Your task to perform on an android device: open chrome and create a bookmark for the current page Image 0: 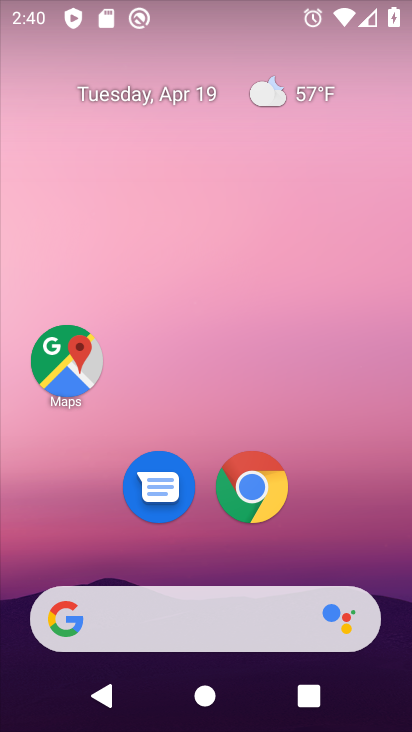
Step 0: click (336, 189)
Your task to perform on an android device: open chrome and create a bookmark for the current page Image 1: 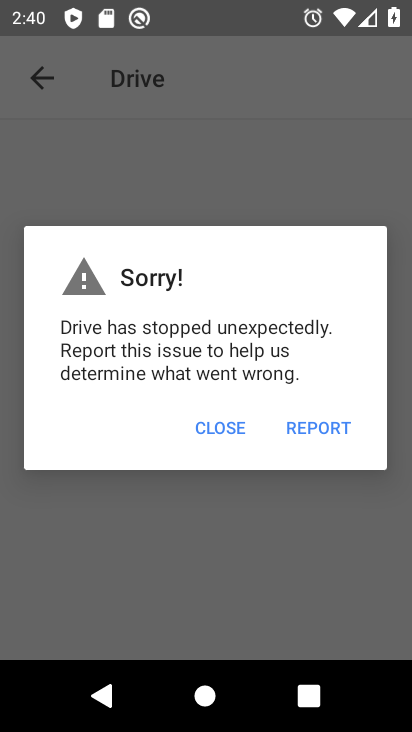
Step 1: drag from (359, 388) to (359, 192)
Your task to perform on an android device: open chrome and create a bookmark for the current page Image 2: 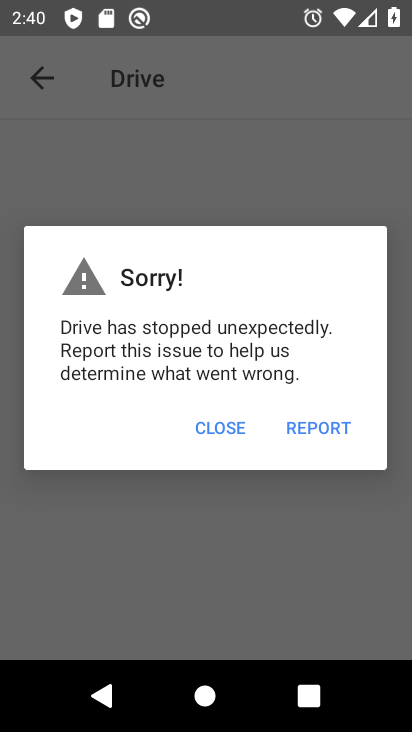
Step 2: press home button
Your task to perform on an android device: open chrome and create a bookmark for the current page Image 3: 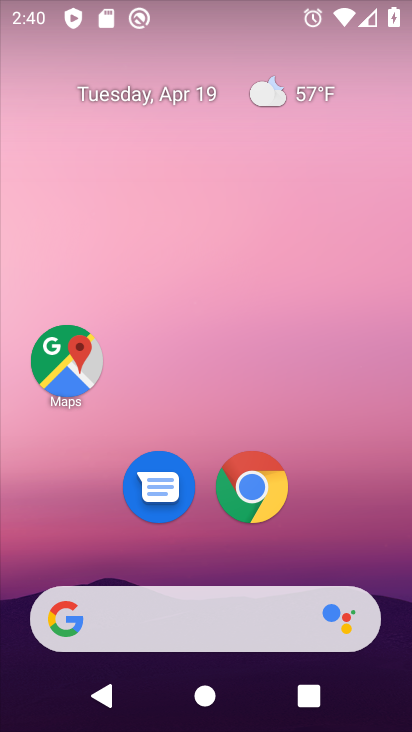
Step 3: click (270, 483)
Your task to perform on an android device: open chrome and create a bookmark for the current page Image 4: 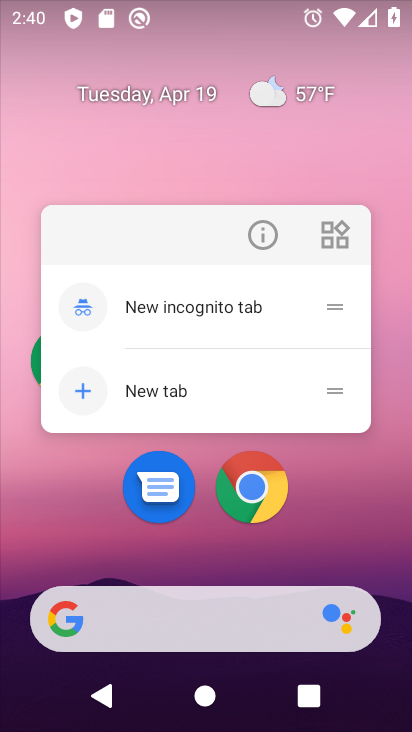
Step 4: click (282, 473)
Your task to perform on an android device: open chrome and create a bookmark for the current page Image 5: 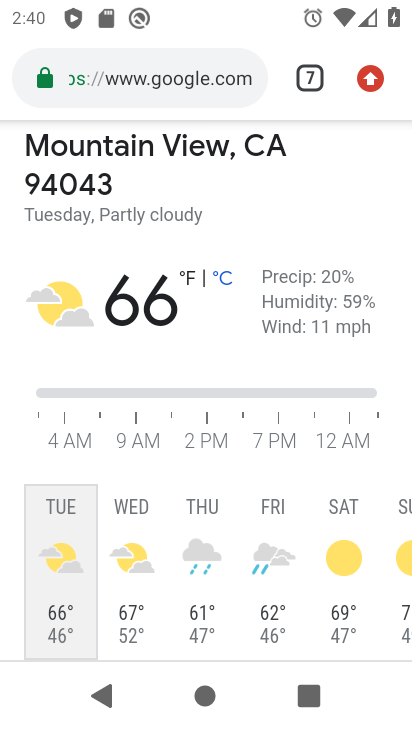
Step 5: click (308, 77)
Your task to perform on an android device: open chrome and create a bookmark for the current page Image 6: 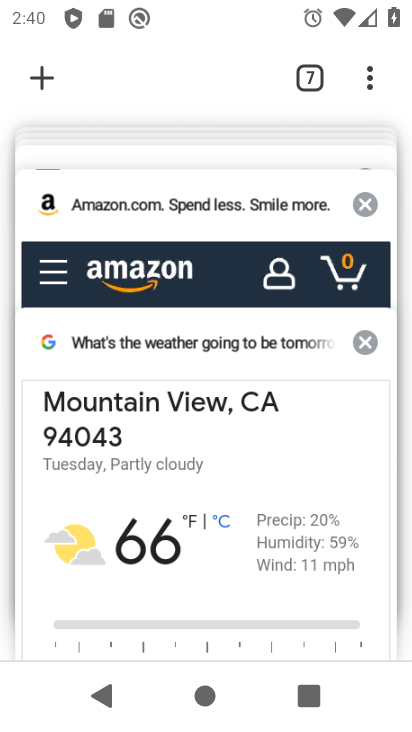
Step 6: click (43, 81)
Your task to perform on an android device: open chrome and create a bookmark for the current page Image 7: 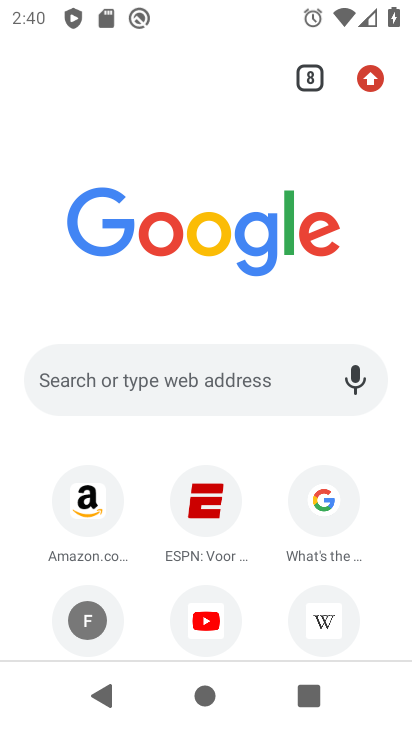
Step 7: click (179, 389)
Your task to perform on an android device: open chrome and create a bookmark for the current page Image 8: 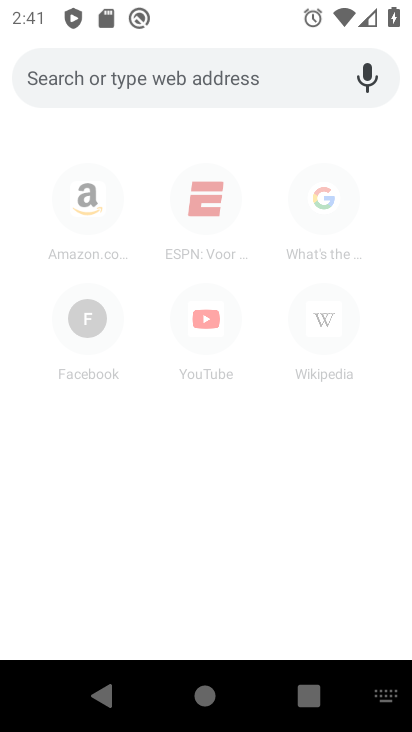
Step 8: type "cricbuss"
Your task to perform on an android device: open chrome and create a bookmark for the current page Image 9: 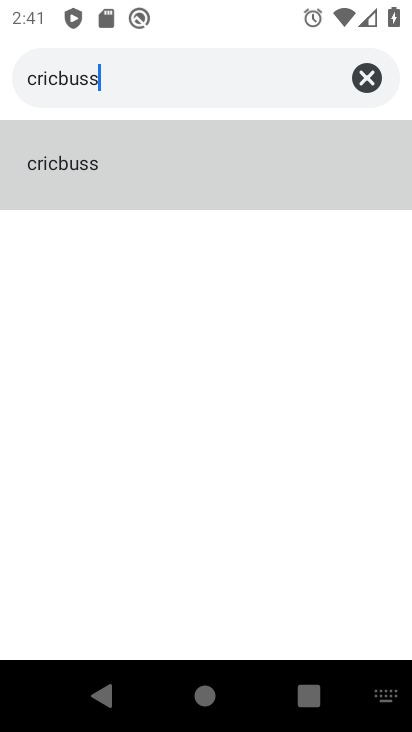
Step 9: click (126, 76)
Your task to perform on an android device: open chrome and create a bookmark for the current page Image 10: 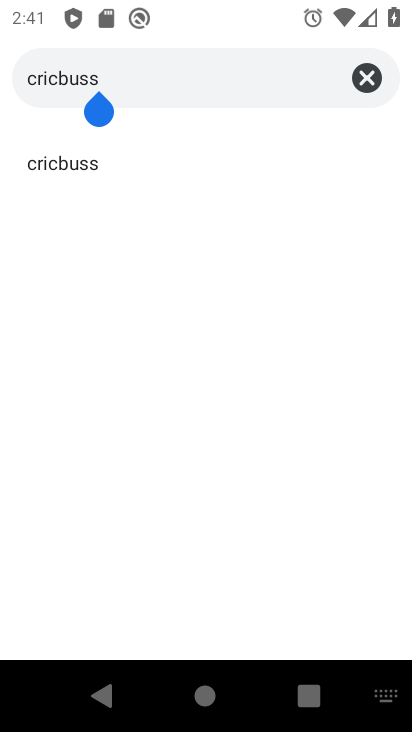
Step 10: click (370, 90)
Your task to perform on an android device: open chrome and create a bookmark for the current page Image 11: 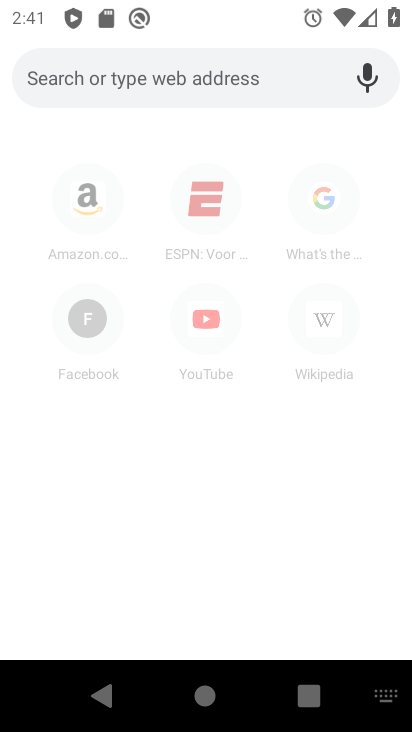
Step 11: type "real madrid"
Your task to perform on an android device: open chrome and create a bookmark for the current page Image 12: 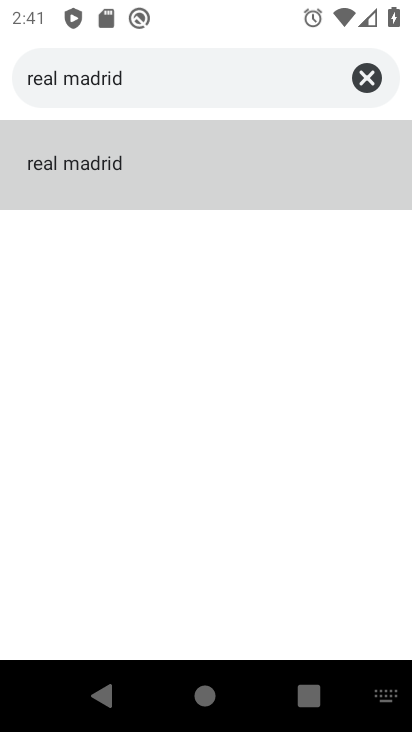
Step 12: click (68, 164)
Your task to perform on an android device: open chrome and create a bookmark for the current page Image 13: 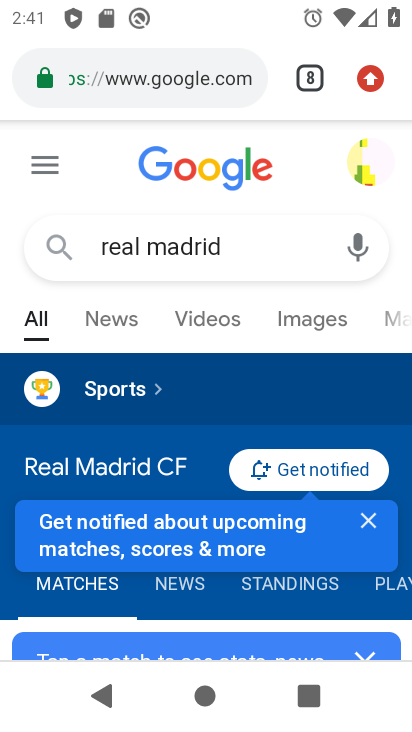
Step 13: drag from (122, 594) to (155, 235)
Your task to perform on an android device: open chrome and create a bookmark for the current page Image 14: 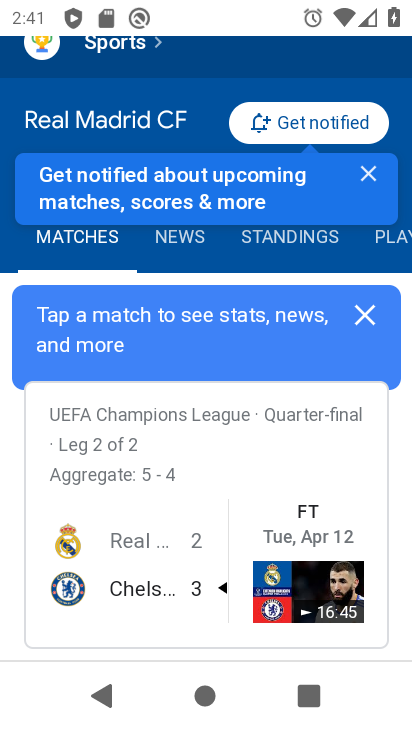
Step 14: drag from (240, 264) to (249, 595)
Your task to perform on an android device: open chrome and create a bookmark for the current page Image 15: 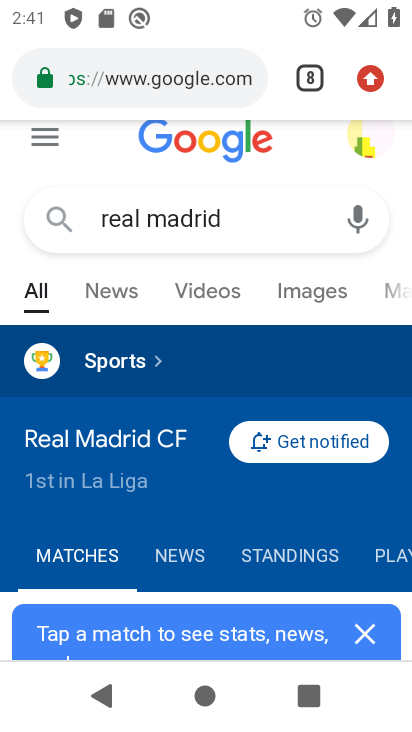
Step 15: click (370, 93)
Your task to perform on an android device: open chrome and create a bookmark for the current page Image 16: 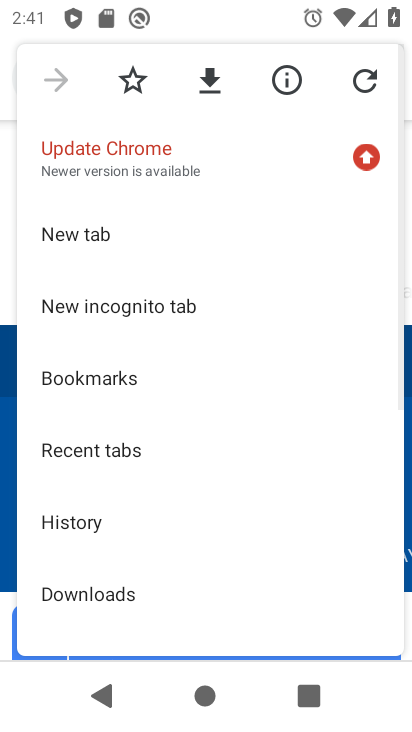
Step 16: click (130, 86)
Your task to perform on an android device: open chrome and create a bookmark for the current page Image 17: 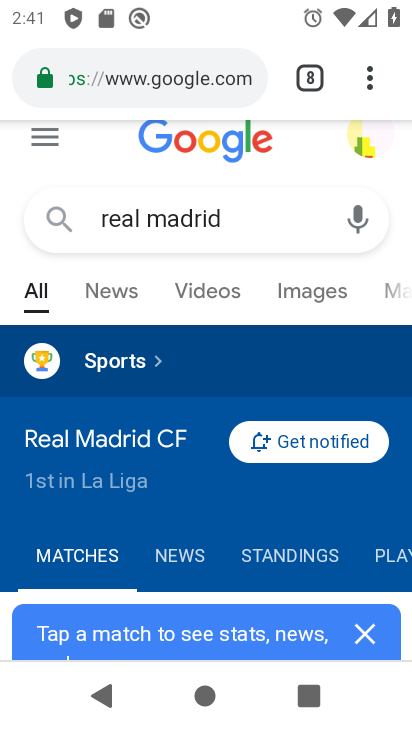
Step 17: task complete